Your task to perform on an android device: toggle pop-ups in chrome Image 0: 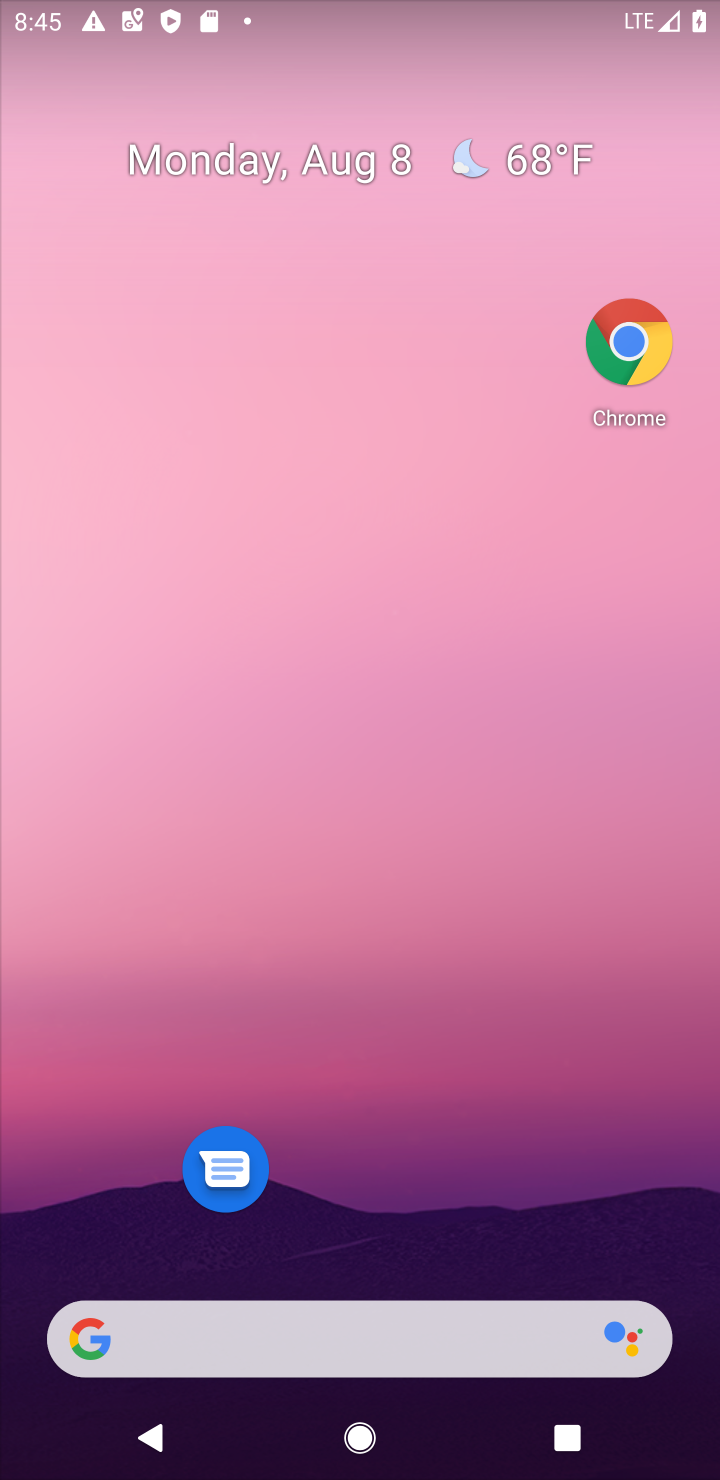
Step 0: click (611, 344)
Your task to perform on an android device: toggle pop-ups in chrome Image 1: 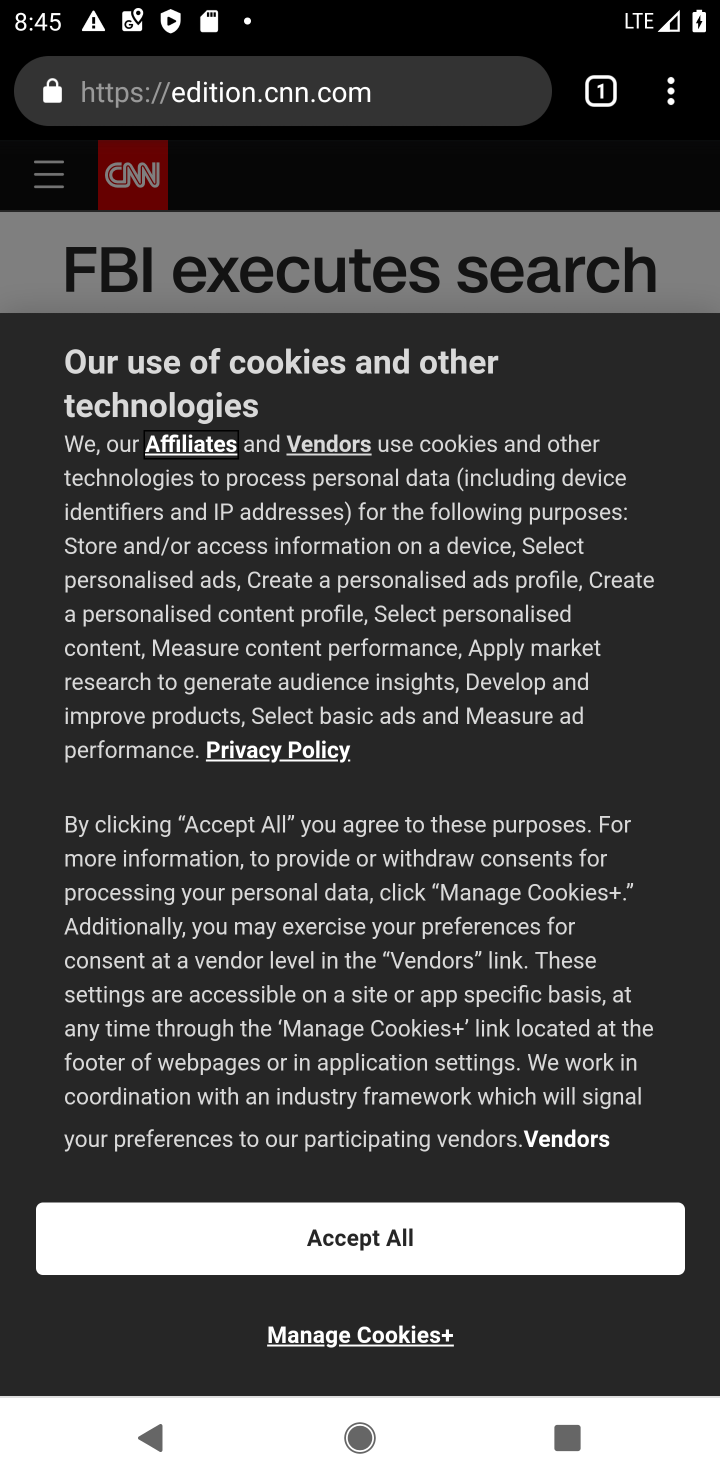
Step 1: drag from (681, 73) to (370, 1008)
Your task to perform on an android device: toggle pop-ups in chrome Image 2: 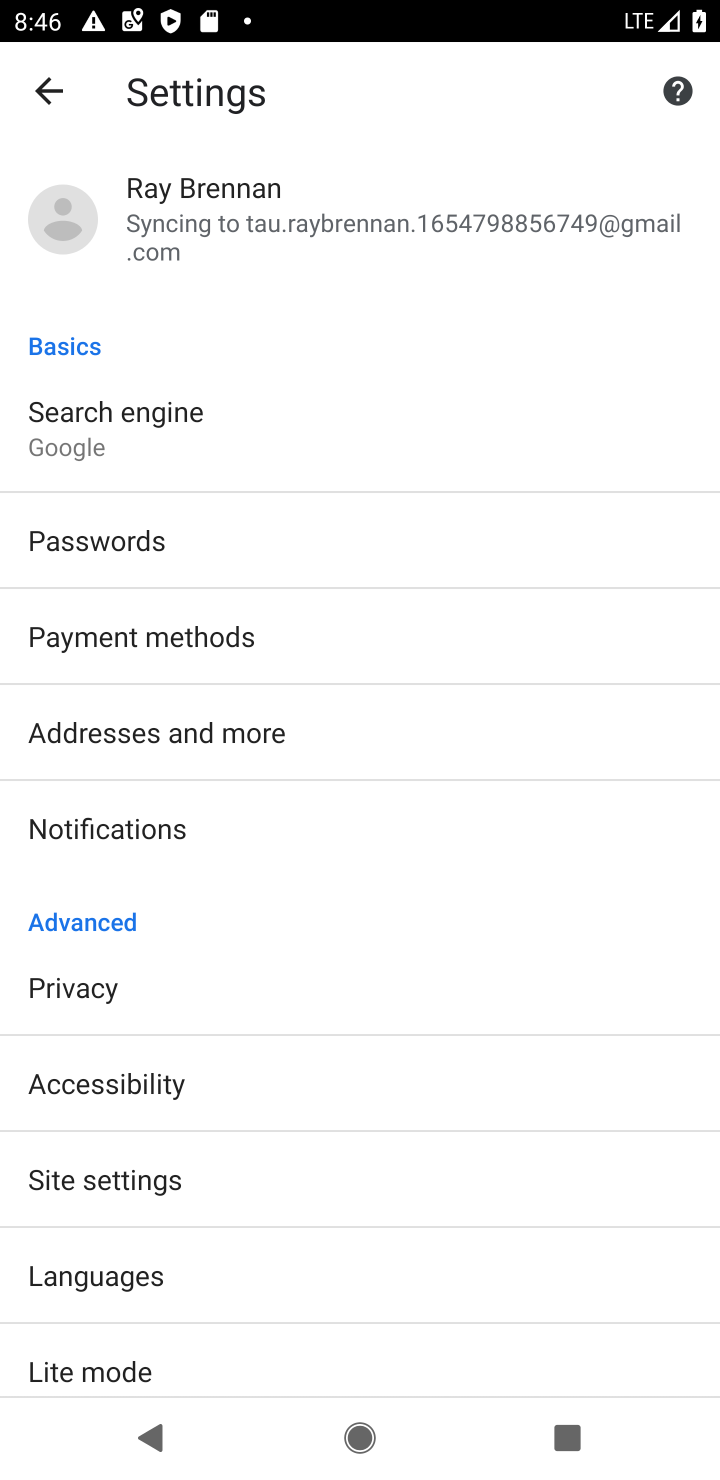
Step 2: click (198, 1201)
Your task to perform on an android device: toggle pop-ups in chrome Image 3: 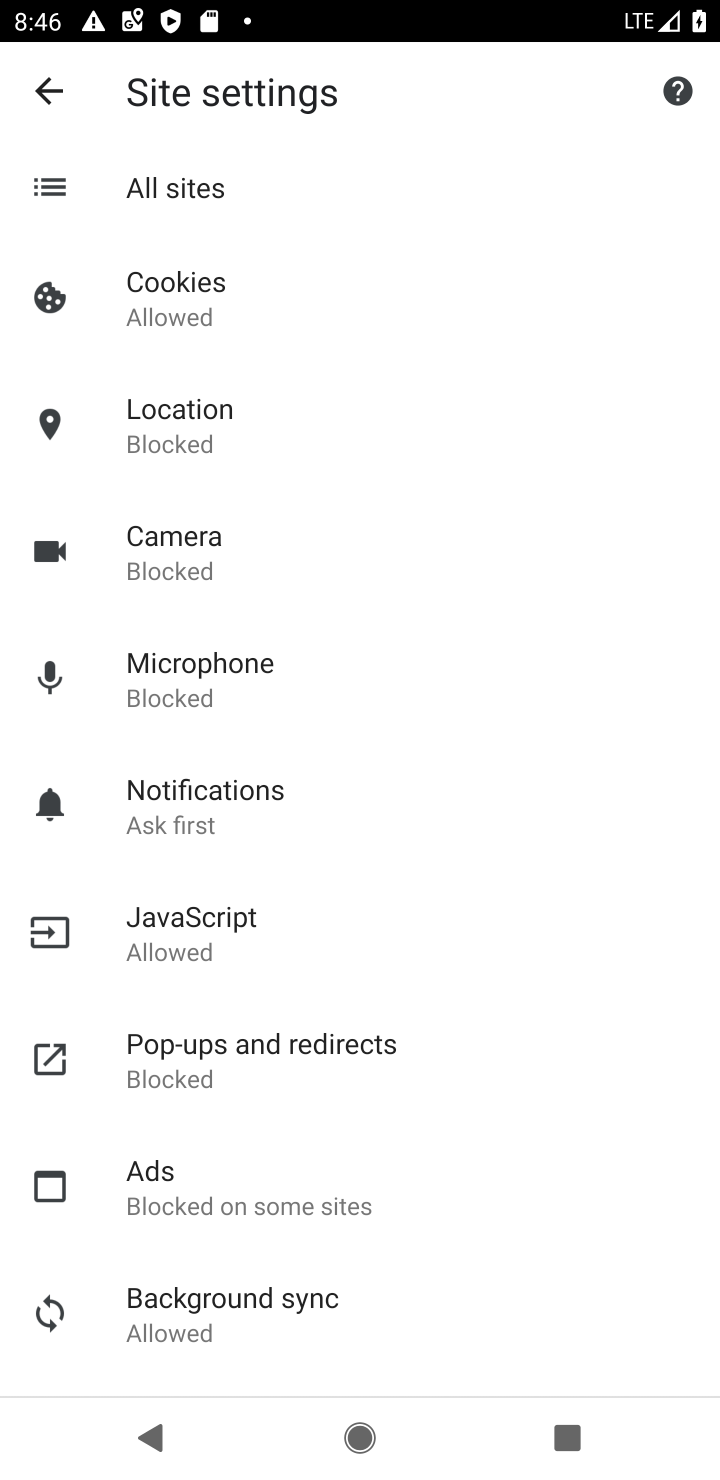
Step 3: click (238, 1055)
Your task to perform on an android device: toggle pop-ups in chrome Image 4: 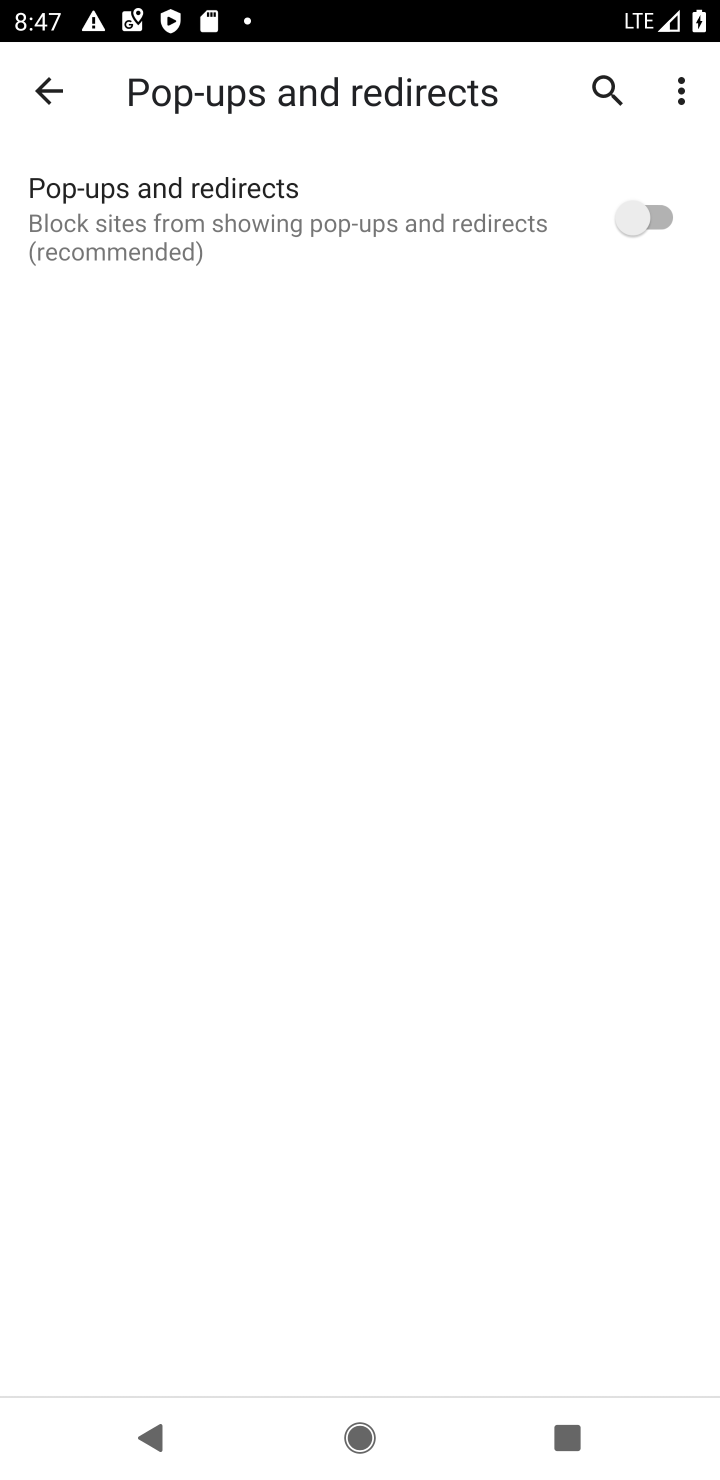
Step 4: click (658, 202)
Your task to perform on an android device: toggle pop-ups in chrome Image 5: 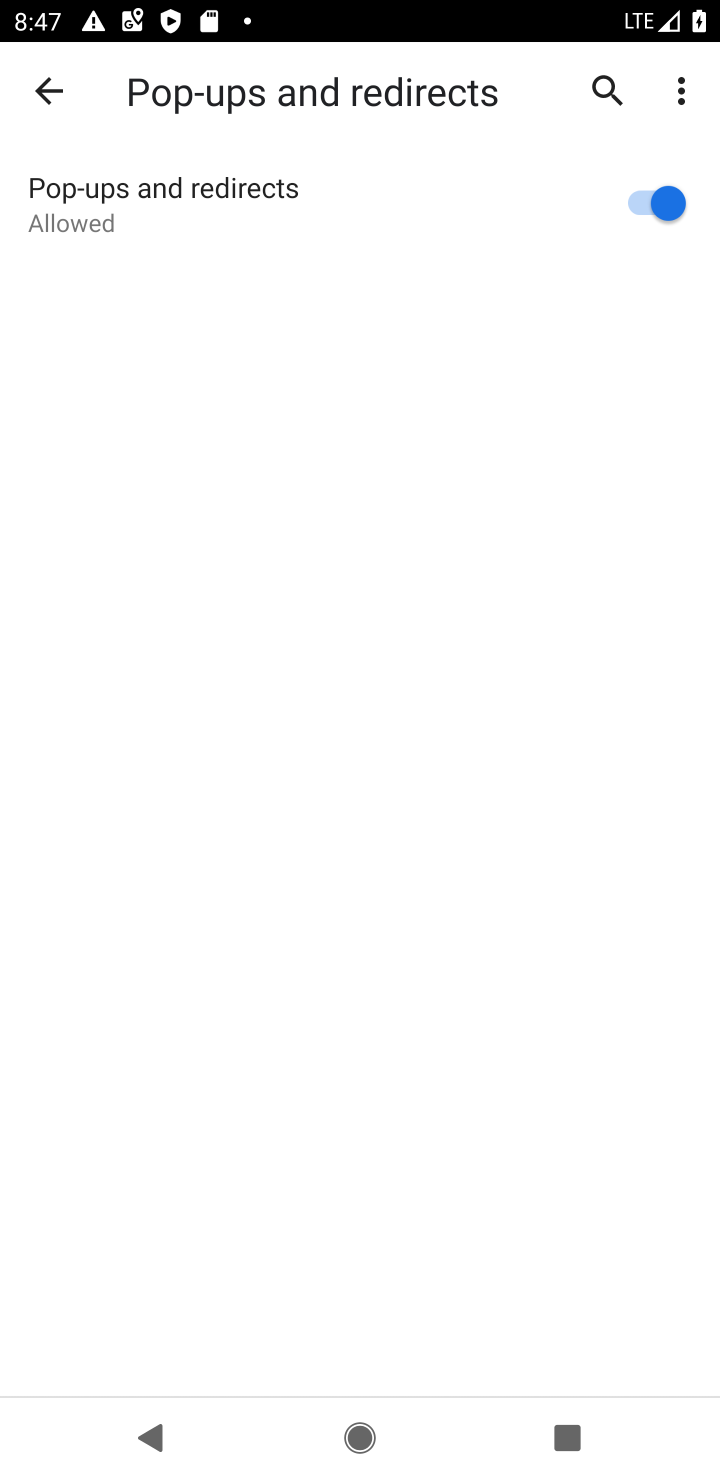
Step 5: task complete